Your task to perform on an android device: toggle notification dots Image 0: 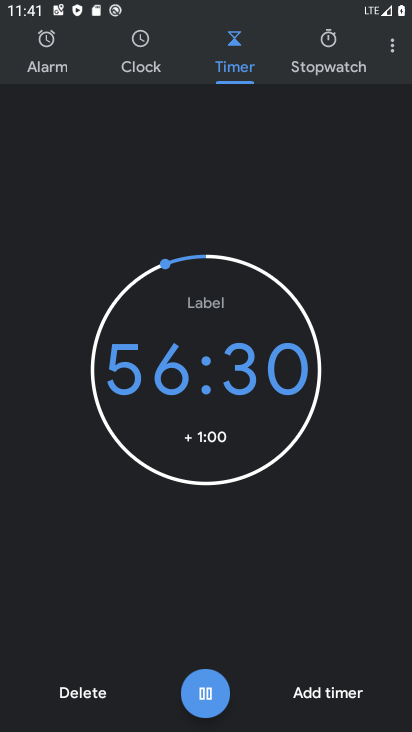
Step 0: press home button
Your task to perform on an android device: toggle notification dots Image 1: 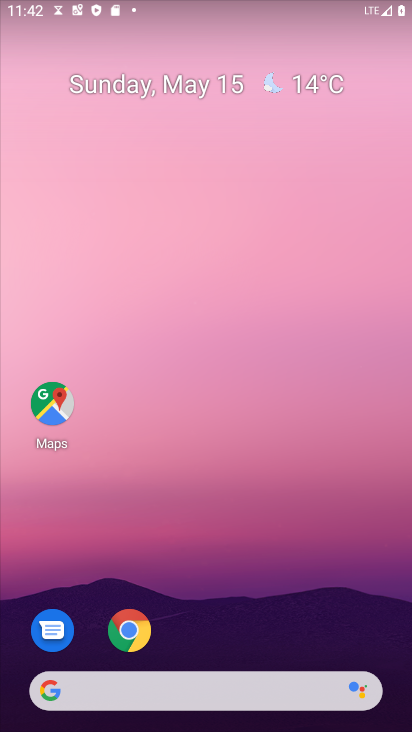
Step 1: drag from (42, 525) to (363, 67)
Your task to perform on an android device: toggle notification dots Image 2: 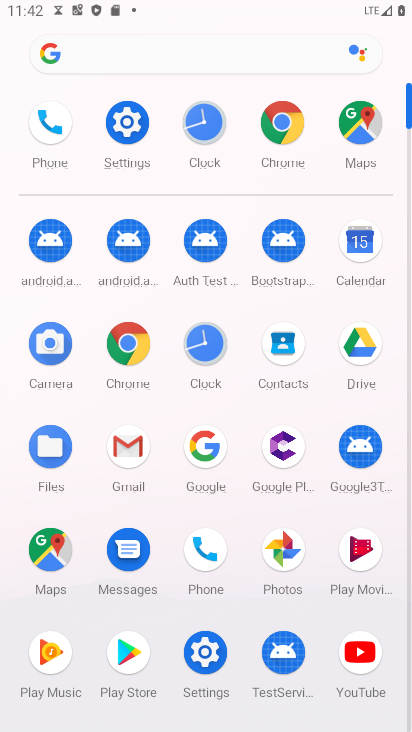
Step 2: click (119, 128)
Your task to perform on an android device: toggle notification dots Image 3: 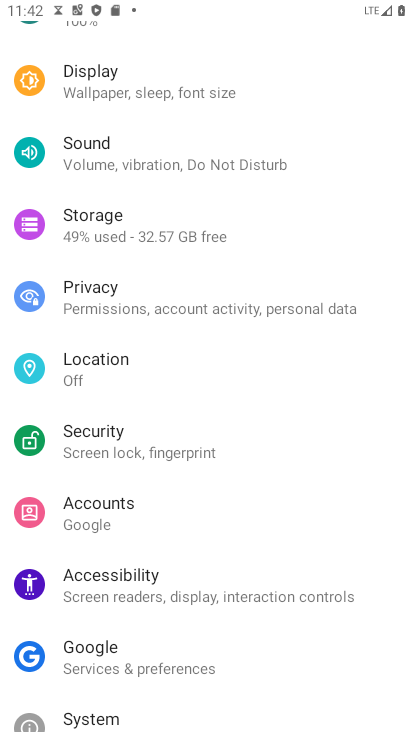
Step 3: drag from (155, 106) to (162, 584)
Your task to perform on an android device: toggle notification dots Image 4: 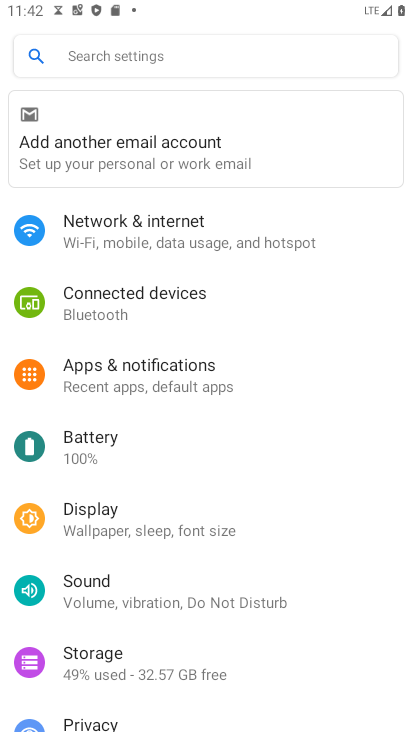
Step 4: click (150, 369)
Your task to perform on an android device: toggle notification dots Image 5: 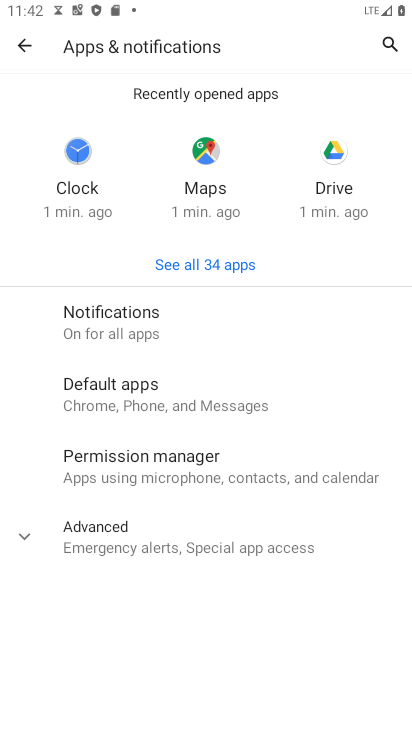
Step 5: click (142, 320)
Your task to perform on an android device: toggle notification dots Image 6: 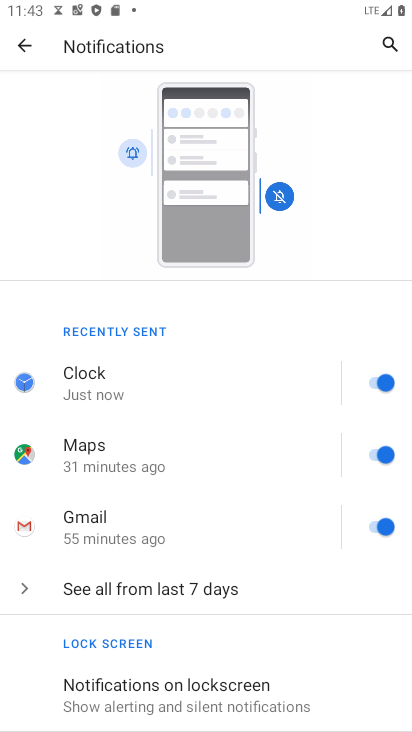
Step 6: drag from (47, 679) to (262, 226)
Your task to perform on an android device: toggle notification dots Image 7: 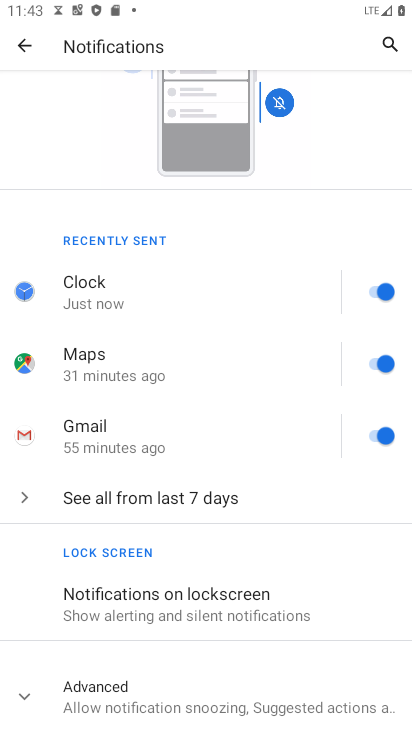
Step 7: click (154, 684)
Your task to perform on an android device: toggle notification dots Image 8: 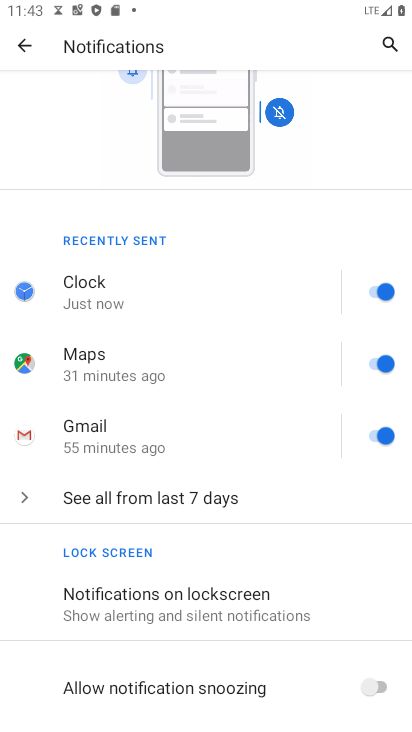
Step 8: drag from (123, 686) to (315, 311)
Your task to perform on an android device: toggle notification dots Image 9: 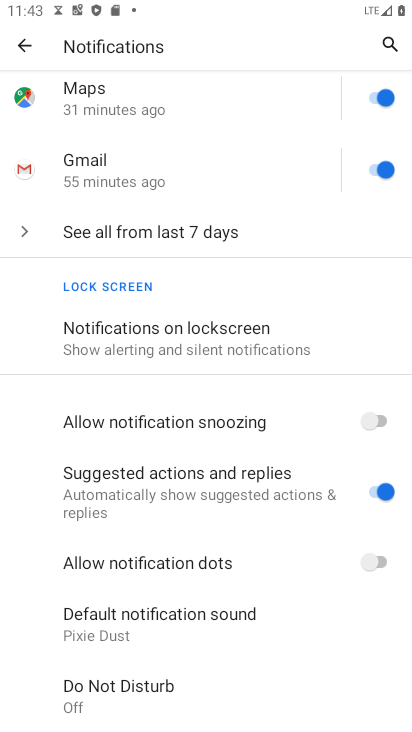
Step 9: click (375, 561)
Your task to perform on an android device: toggle notification dots Image 10: 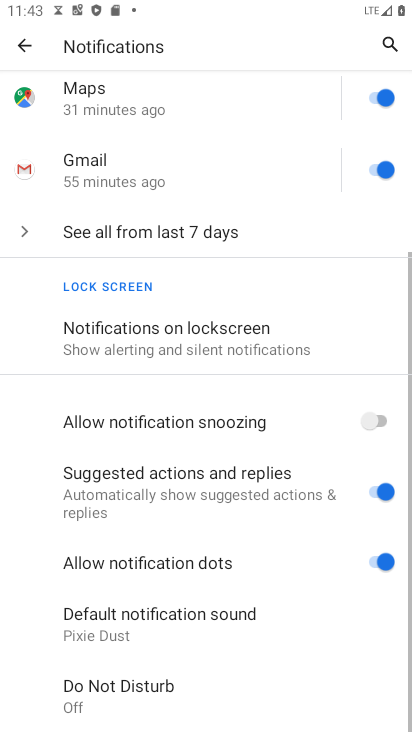
Step 10: task complete